Your task to perform on an android device: open chrome and create a bookmark for the current page Image 0: 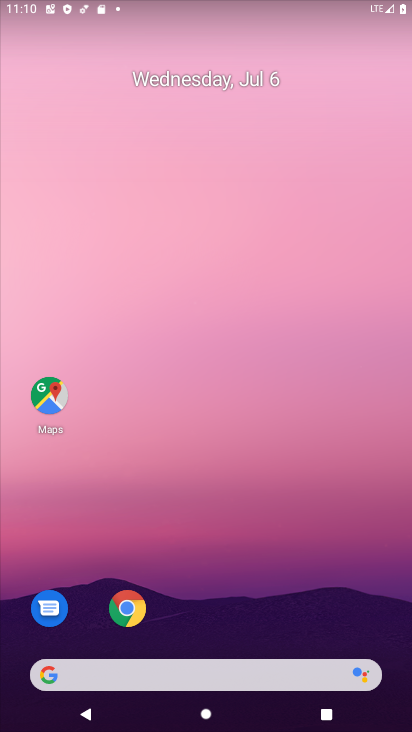
Step 0: drag from (153, 655) to (214, 275)
Your task to perform on an android device: open chrome and create a bookmark for the current page Image 1: 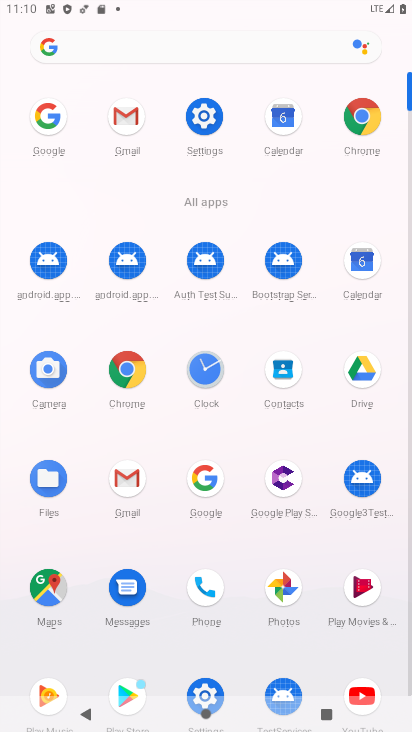
Step 1: click (365, 114)
Your task to perform on an android device: open chrome and create a bookmark for the current page Image 2: 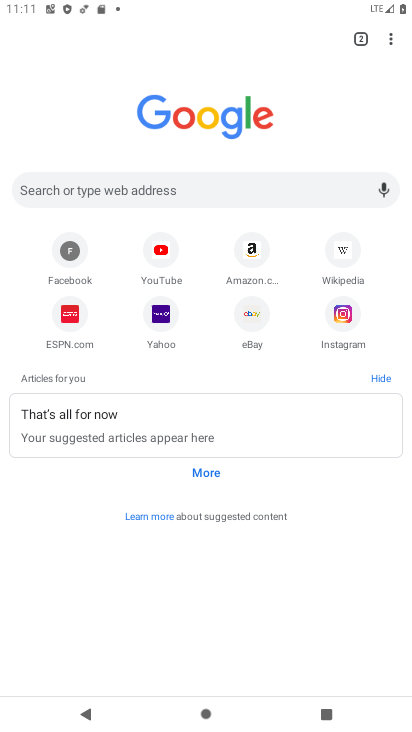
Step 2: click (386, 36)
Your task to perform on an android device: open chrome and create a bookmark for the current page Image 3: 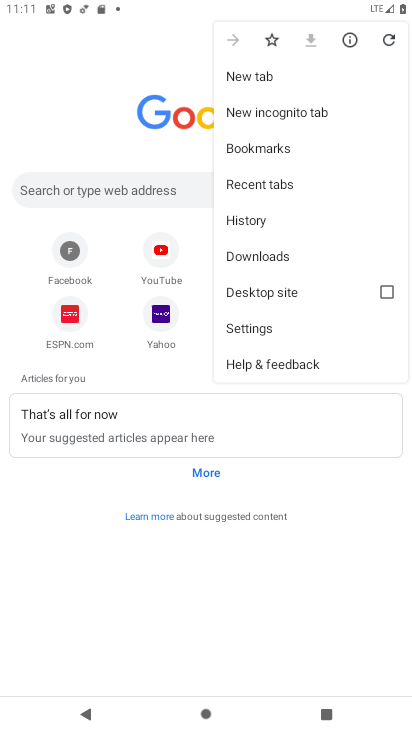
Step 3: click (261, 146)
Your task to perform on an android device: open chrome and create a bookmark for the current page Image 4: 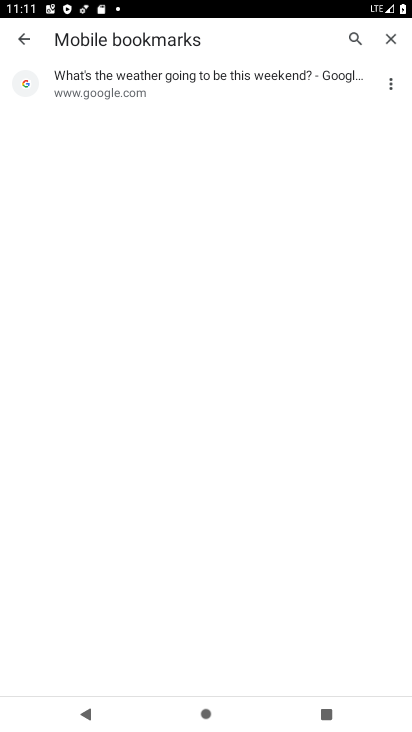
Step 4: click (22, 39)
Your task to perform on an android device: open chrome and create a bookmark for the current page Image 5: 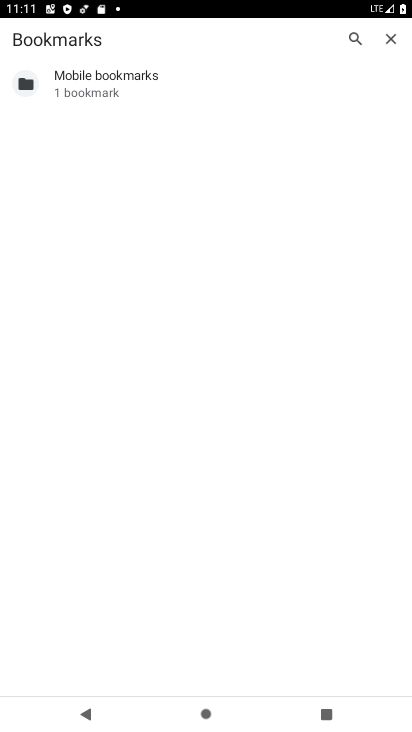
Step 5: click (385, 42)
Your task to perform on an android device: open chrome and create a bookmark for the current page Image 6: 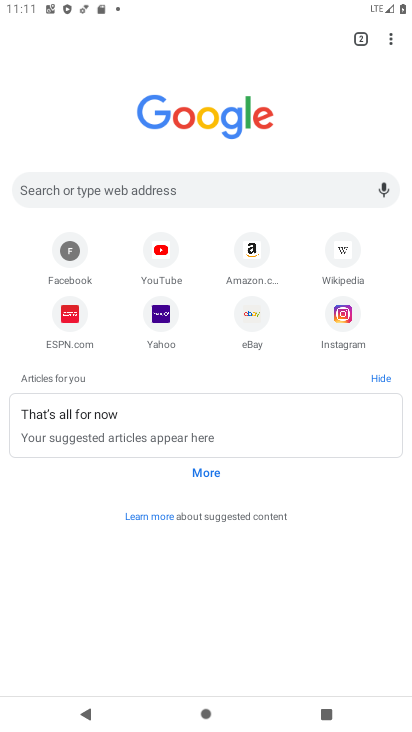
Step 6: click (389, 41)
Your task to perform on an android device: open chrome and create a bookmark for the current page Image 7: 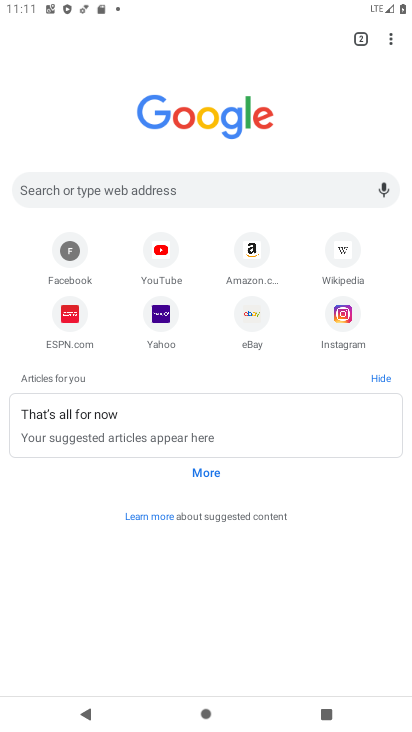
Step 7: click (386, 43)
Your task to perform on an android device: open chrome and create a bookmark for the current page Image 8: 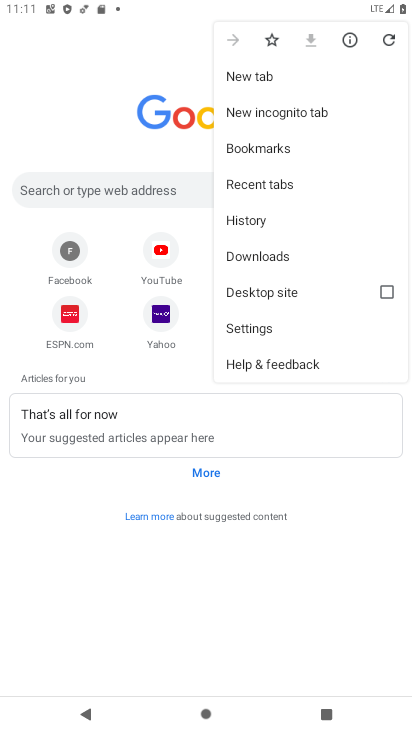
Step 8: click (278, 36)
Your task to perform on an android device: open chrome and create a bookmark for the current page Image 9: 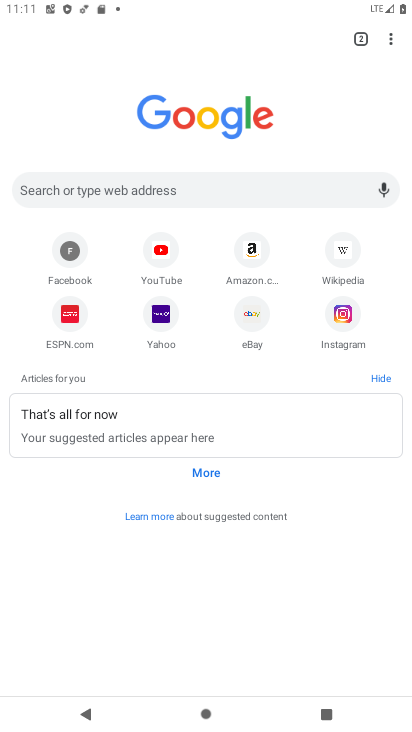
Step 9: task complete